Your task to perform on an android device: Open settings Image 0: 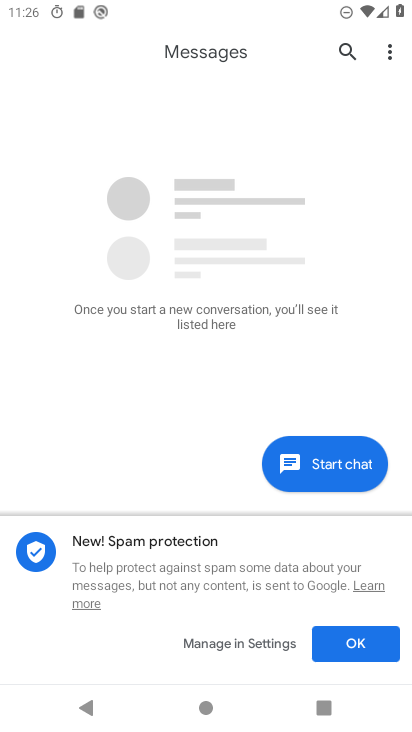
Step 0: press back button
Your task to perform on an android device: Open settings Image 1: 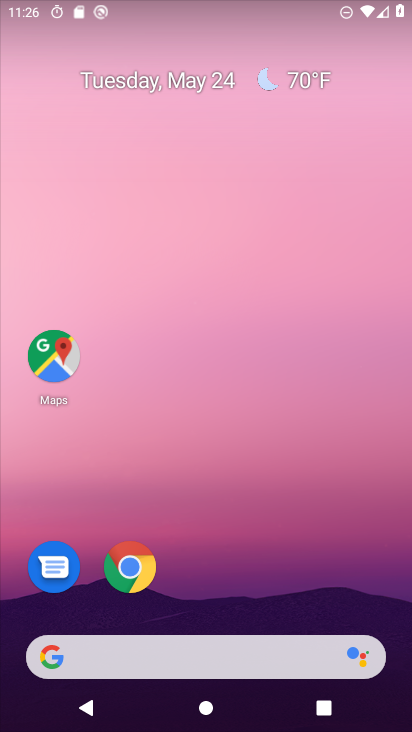
Step 1: drag from (400, 713) to (404, 230)
Your task to perform on an android device: Open settings Image 2: 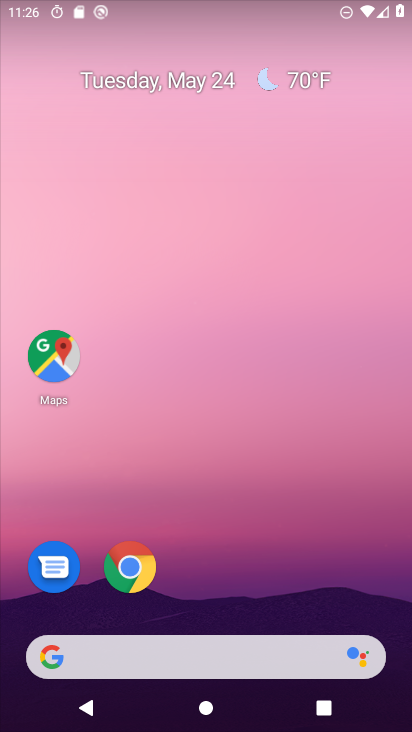
Step 2: drag from (400, 680) to (388, 245)
Your task to perform on an android device: Open settings Image 3: 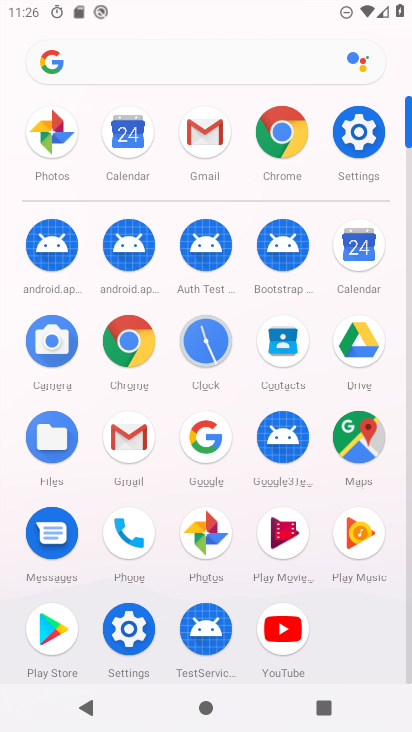
Step 3: click (364, 150)
Your task to perform on an android device: Open settings Image 4: 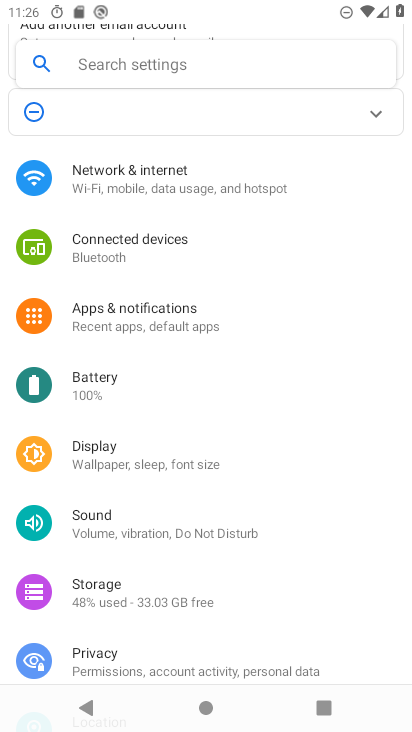
Step 4: task complete